Your task to perform on an android device: turn on improve location accuracy Image 0: 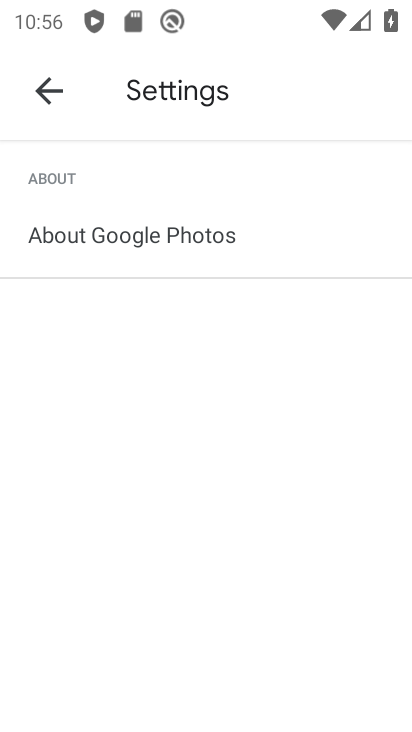
Step 0: press home button
Your task to perform on an android device: turn on improve location accuracy Image 1: 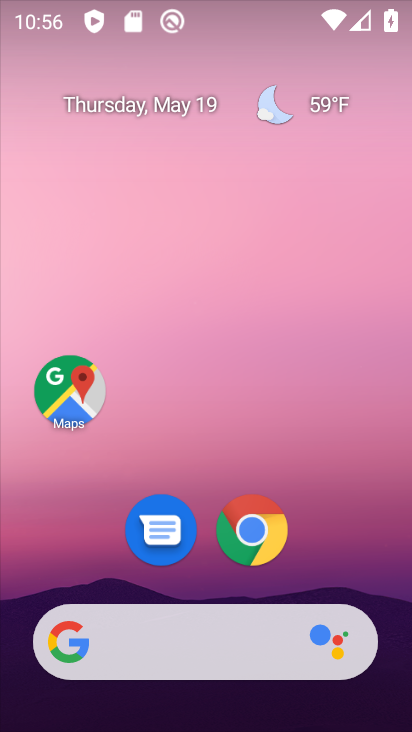
Step 1: drag from (353, 525) to (382, 199)
Your task to perform on an android device: turn on improve location accuracy Image 2: 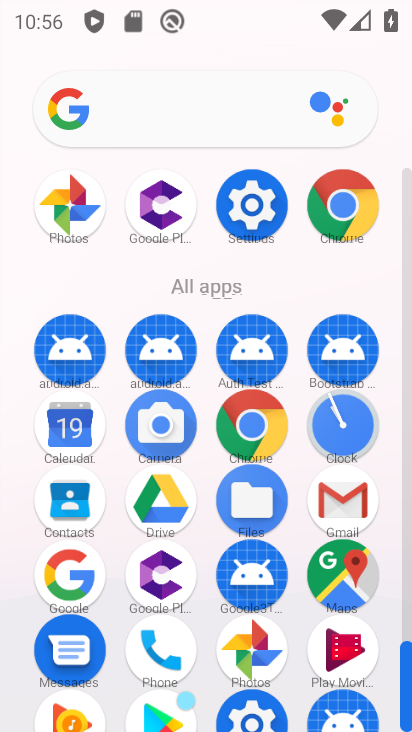
Step 2: click (272, 198)
Your task to perform on an android device: turn on improve location accuracy Image 3: 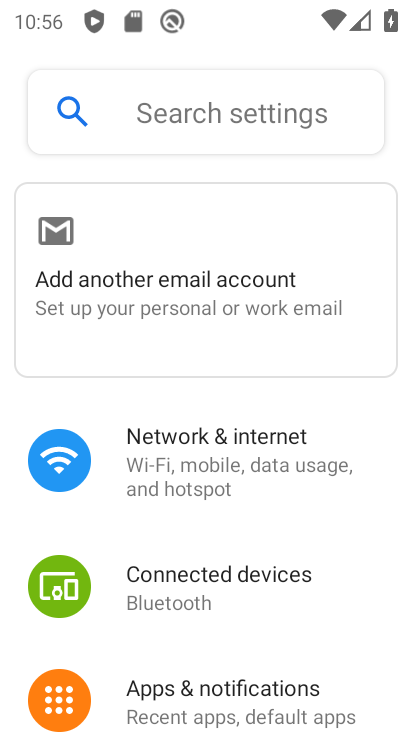
Step 3: drag from (290, 629) to (262, 316)
Your task to perform on an android device: turn on improve location accuracy Image 4: 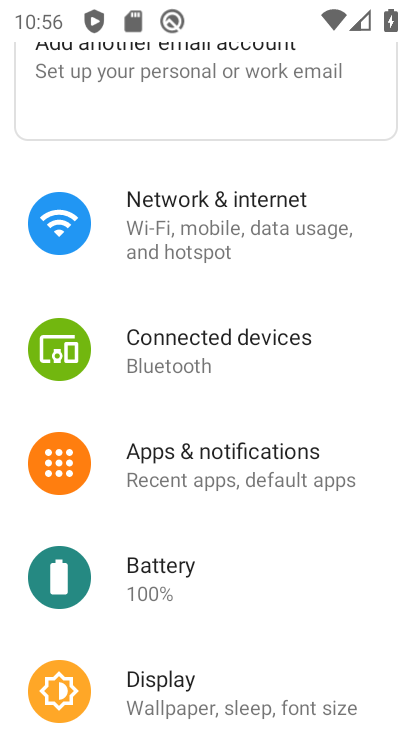
Step 4: drag from (262, 566) to (240, 267)
Your task to perform on an android device: turn on improve location accuracy Image 5: 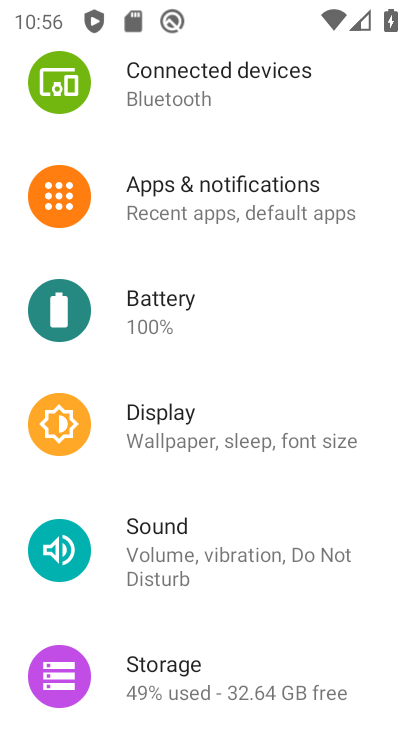
Step 5: drag from (263, 612) to (284, 299)
Your task to perform on an android device: turn on improve location accuracy Image 6: 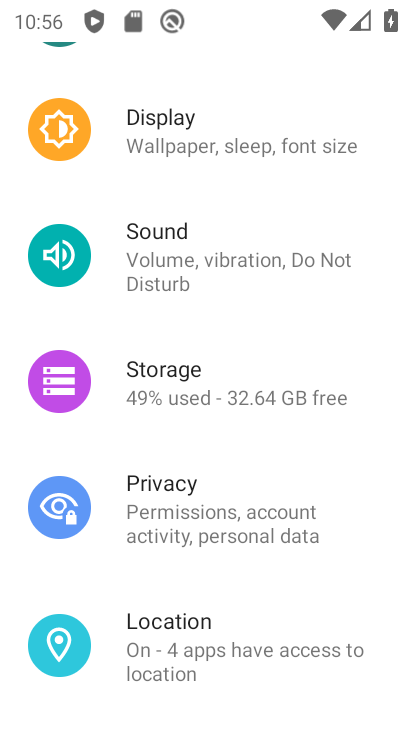
Step 6: click (226, 624)
Your task to perform on an android device: turn on improve location accuracy Image 7: 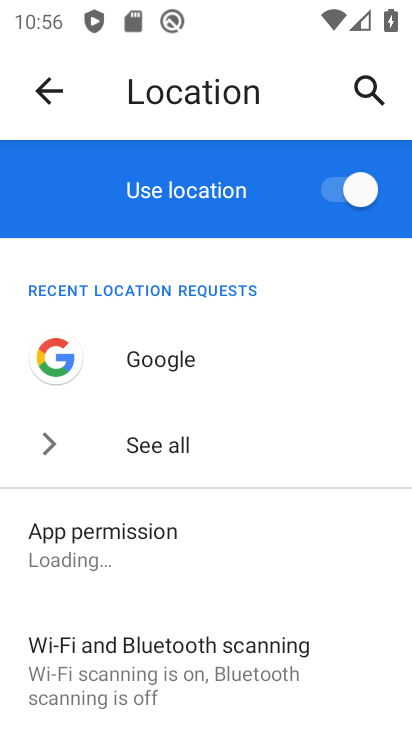
Step 7: drag from (354, 670) to (351, 316)
Your task to perform on an android device: turn on improve location accuracy Image 8: 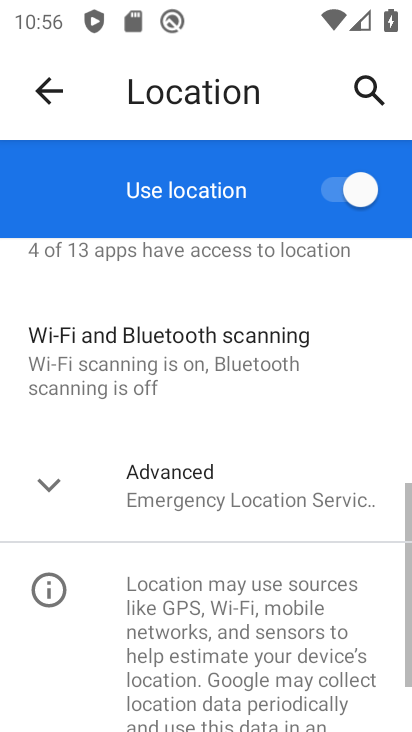
Step 8: click (273, 496)
Your task to perform on an android device: turn on improve location accuracy Image 9: 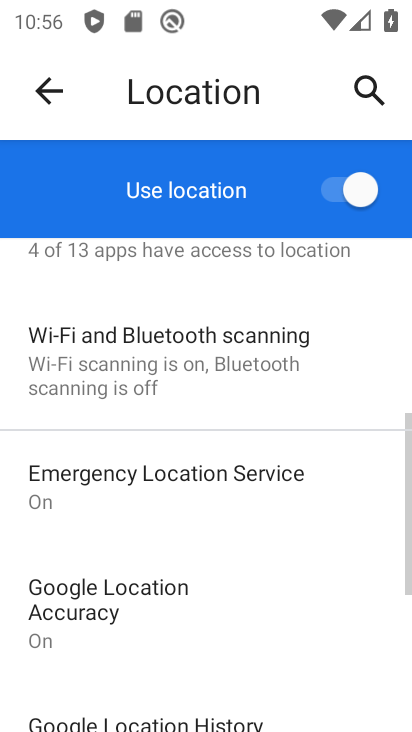
Step 9: task complete